Your task to perform on an android device: check battery use Image 0: 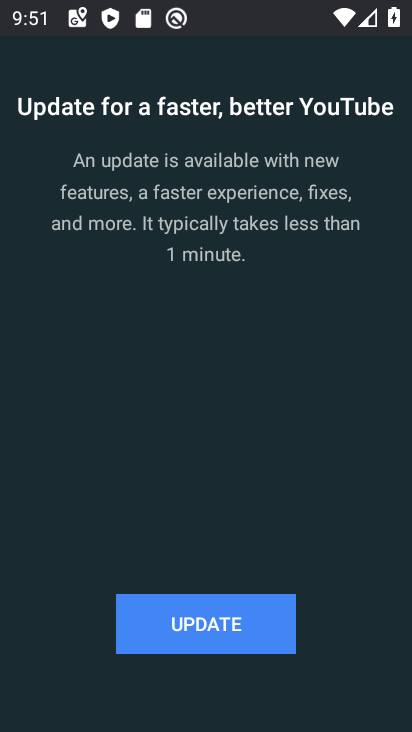
Step 0: press home button
Your task to perform on an android device: check battery use Image 1: 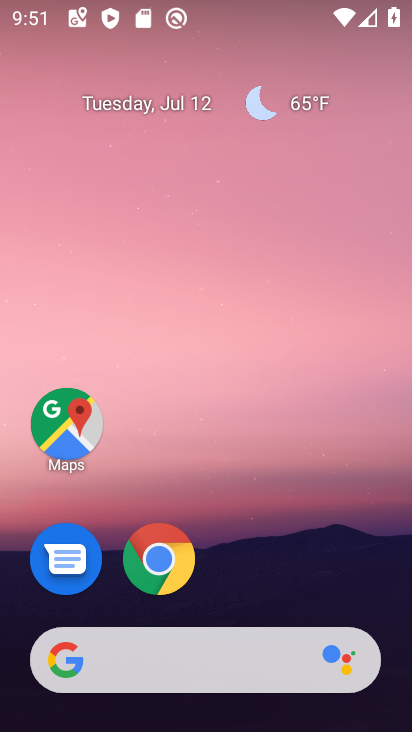
Step 1: drag from (358, 541) to (350, 96)
Your task to perform on an android device: check battery use Image 2: 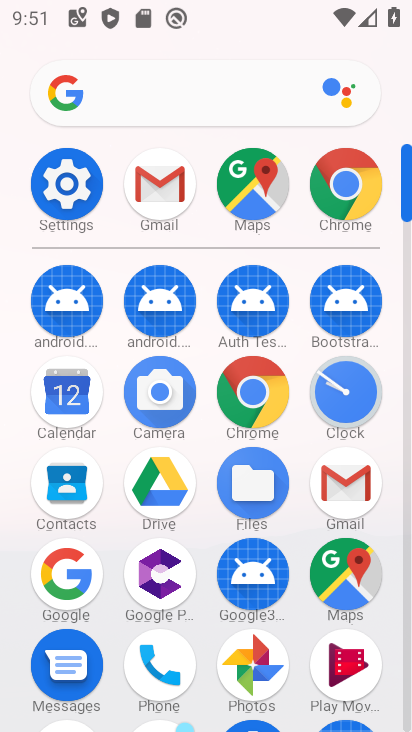
Step 2: click (80, 198)
Your task to perform on an android device: check battery use Image 3: 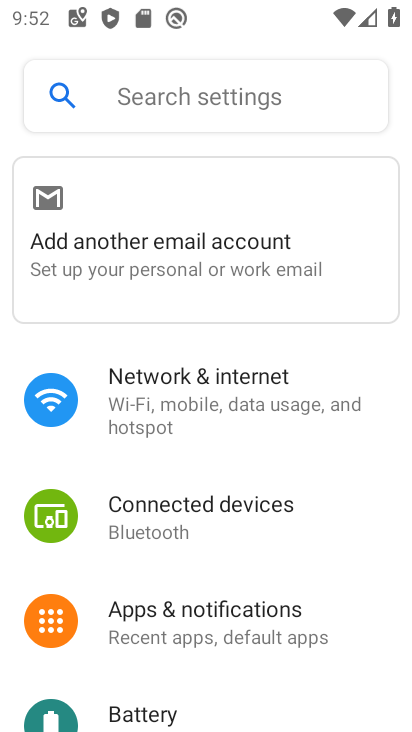
Step 3: drag from (359, 527) to (373, 384)
Your task to perform on an android device: check battery use Image 4: 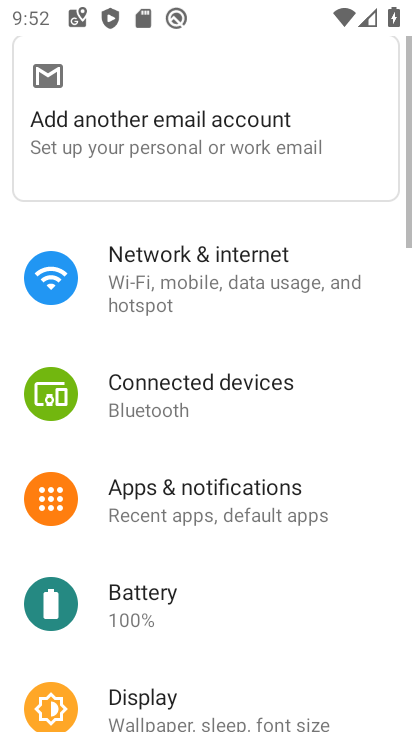
Step 4: drag from (358, 510) to (358, 384)
Your task to perform on an android device: check battery use Image 5: 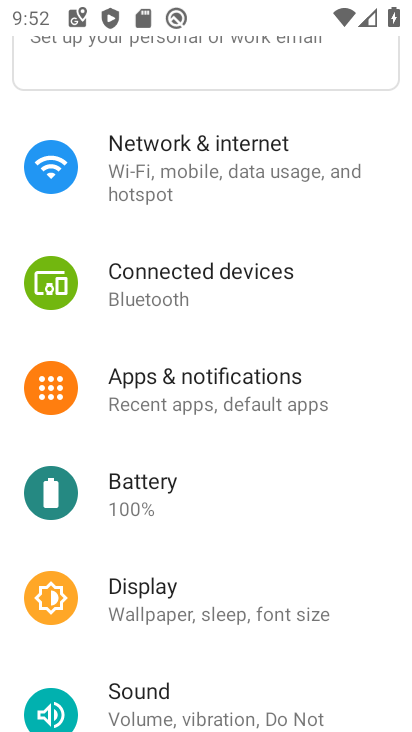
Step 5: drag from (345, 509) to (349, 378)
Your task to perform on an android device: check battery use Image 6: 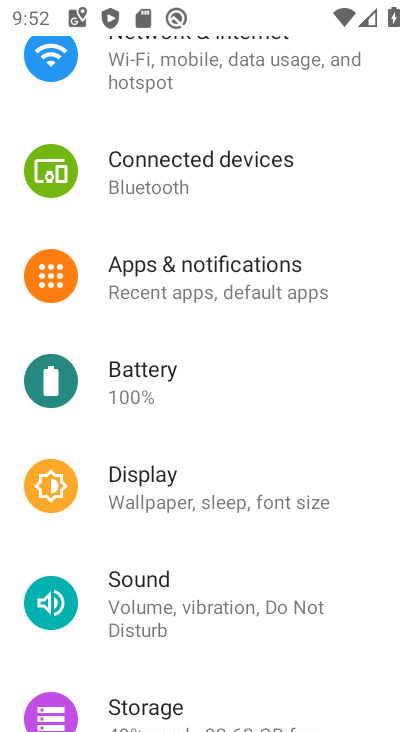
Step 6: drag from (355, 510) to (355, 332)
Your task to perform on an android device: check battery use Image 7: 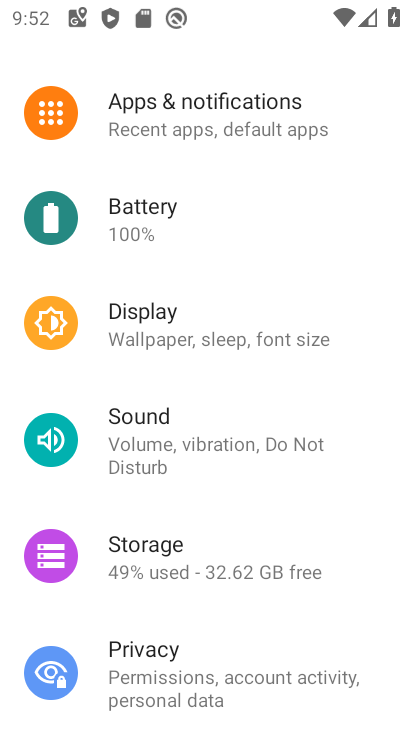
Step 7: drag from (366, 476) to (368, 372)
Your task to perform on an android device: check battery use Image 8: 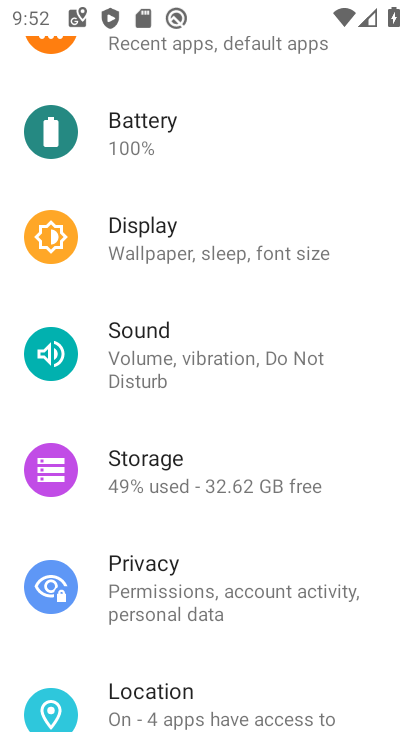
Step 8: drag from (358, 492) to (362, 377)
Your task to perform on an android device: check battery use Image 9: 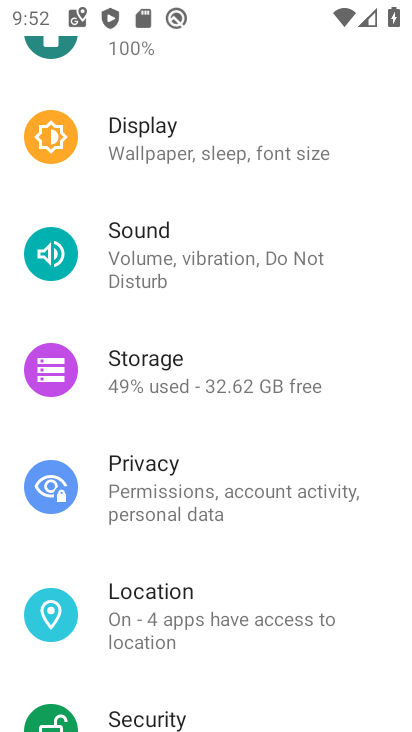
Step 9: drag from (359, 534) to (364, 414)
Your task to perform on an android device: check battery use Image 10: 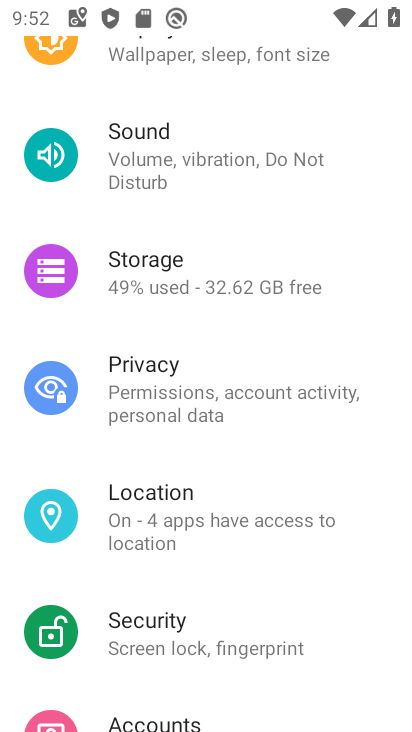
Step 10: drag from (356, 509) to (367, 421)
Your task to perform on an android device: check battery use Image 11: 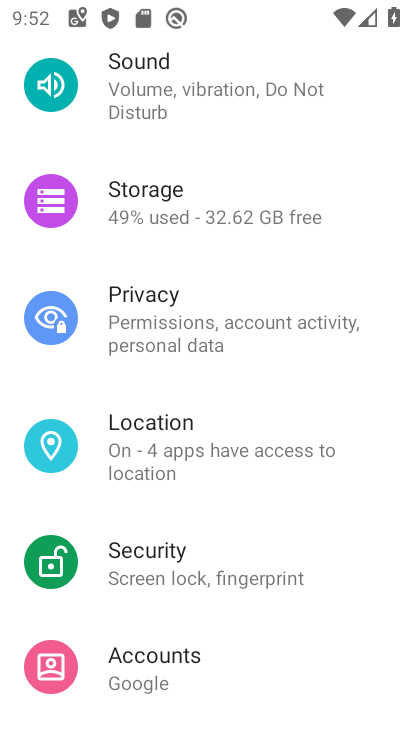
Step 11: drag from (349, 550) to (354, 448)
Your task to perform on an android device: check battery use Image 12: 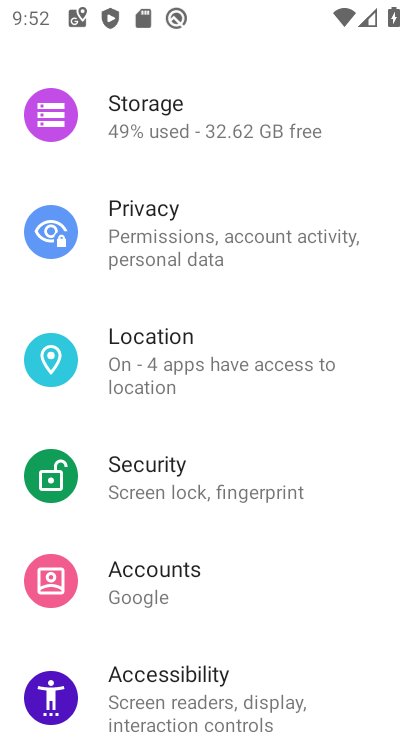
Step 12: drag from (365, 598) to (365, 463)
Your task to perform on an android device: check battery use Image 13: 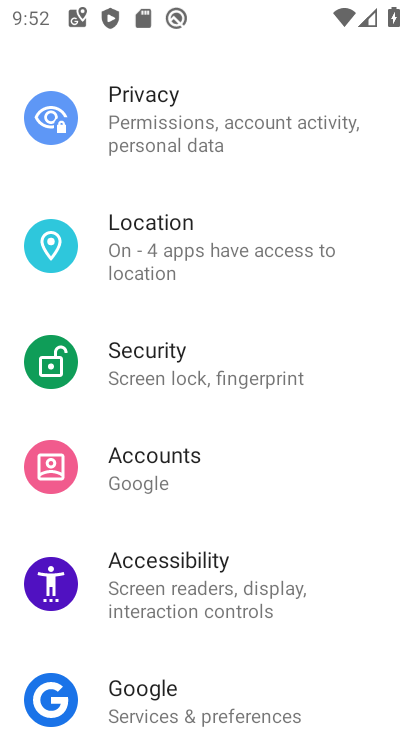
Step 13: drag from (354, 394) to (350, 492)
Your task to perform on an android device: check battery use Image 14: 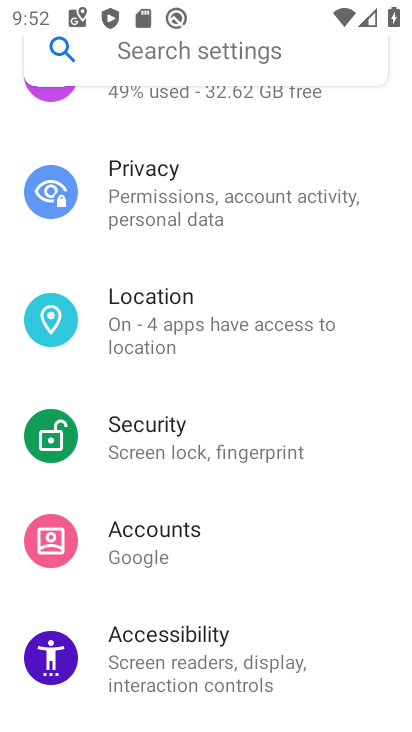
Step 14: drag from (350, 384) to (349, 489)
Your task to perform on an android device: check battery use Image 15: 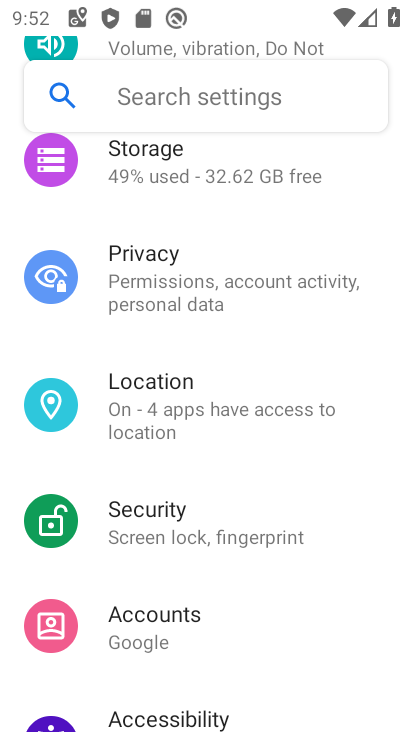
Step 15: drag from (364, 372) to (365, 466)
Your task to perform on an android device: check battery use Image 16: 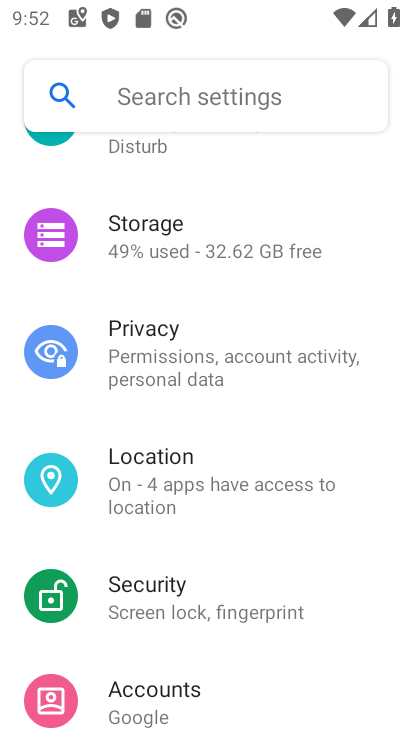
Step 16: drag from (381, 357) to (377, 464)
Your task to perform on an android device: check battery use Image 17: 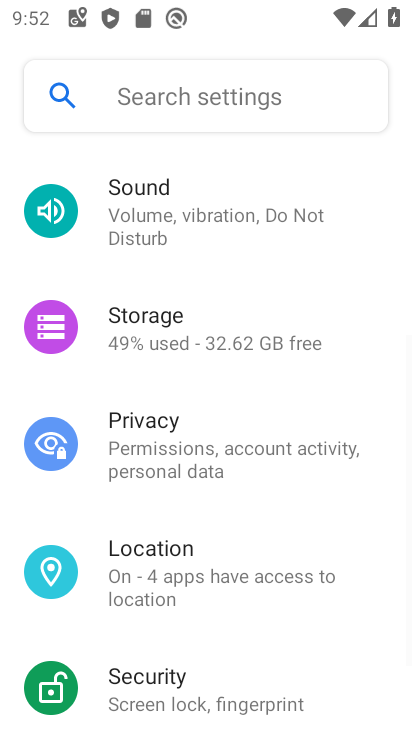
Step 17: drag from (375, 372) to (375, 478)
Your task to perform on an android device: check battery use Image 18: 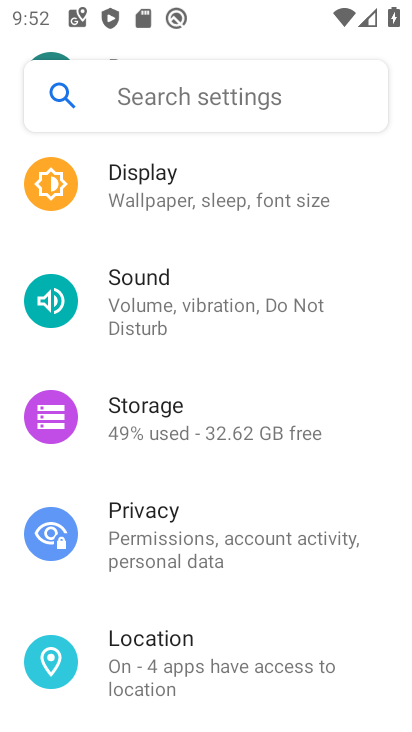
Step 18: drag from (379, 357) to (369, 486)
Your task to perform on an android device: check battery use Image 19: 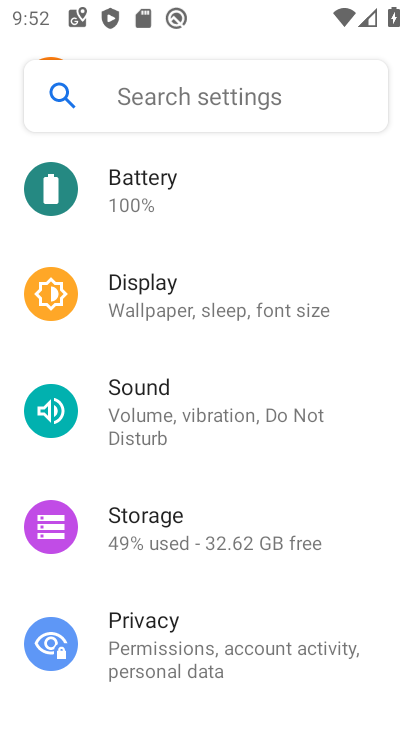
Step 19: drag from (365, 354) to (356, 458)
Your task to perform on an android device: check battery use Image 20: 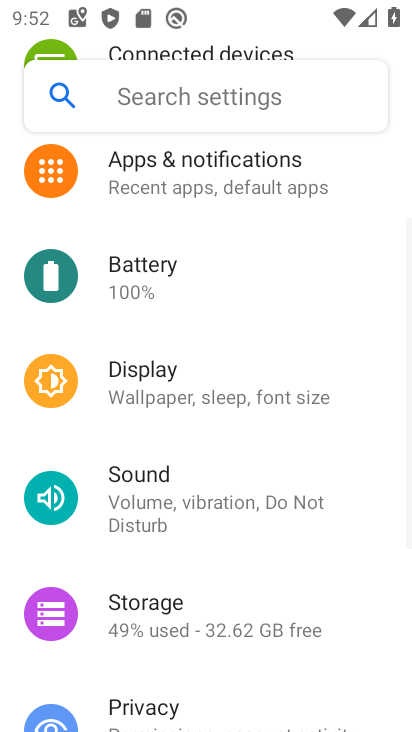
Step 20: drag from (355, 325) to (352, 504)
Your task to perform on an android device: check battery use Image 21: 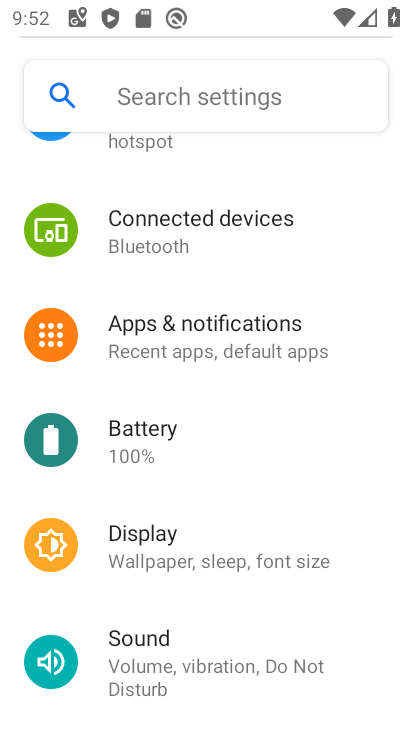
Step 21: drag from (363, 342) to (351, 473)
Your task to perform on an android device: check battery use Image 22: 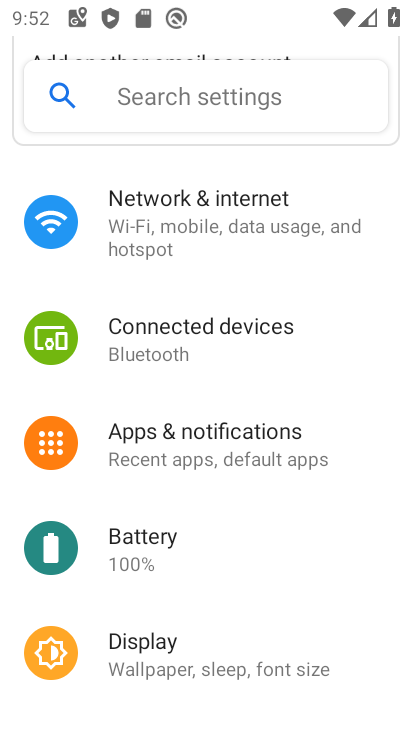
Step 22: click (200, 551)
Your task to perform on an android device: check battery use Image 23: 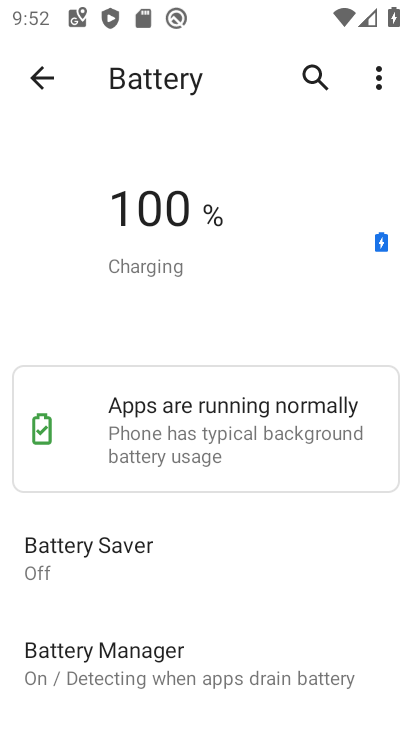
Step 23: click (383, 77)
Your task to perform on an android device: check battery use Image 24: 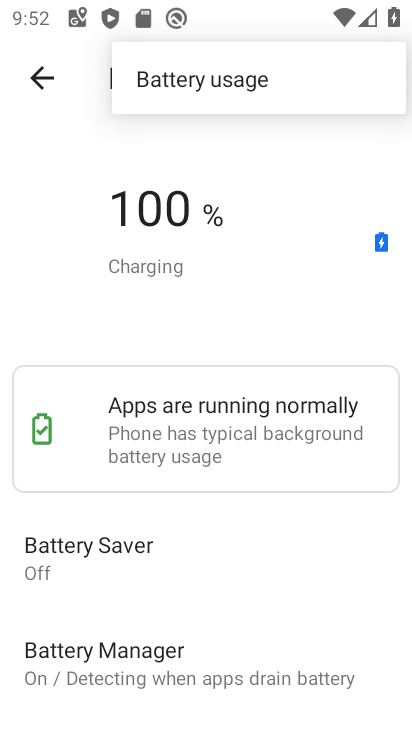
Step 24: click (275, 87)
Your task to perform on an android device: check battery use Image 25: 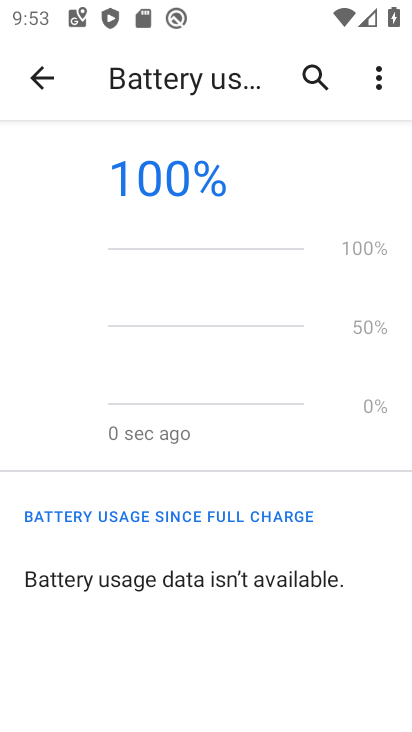
Step 25: task complete